Your task to perform on an android device: Open eBay Image 0: 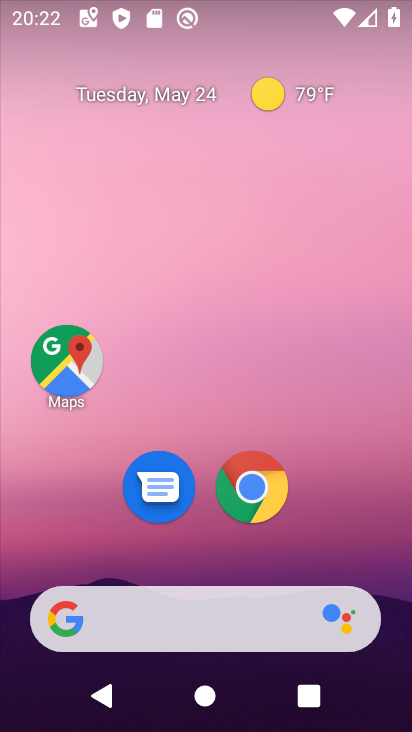
Step 0: click (275, 500)
Your task to perform on an android device: Open eBay Image 1: 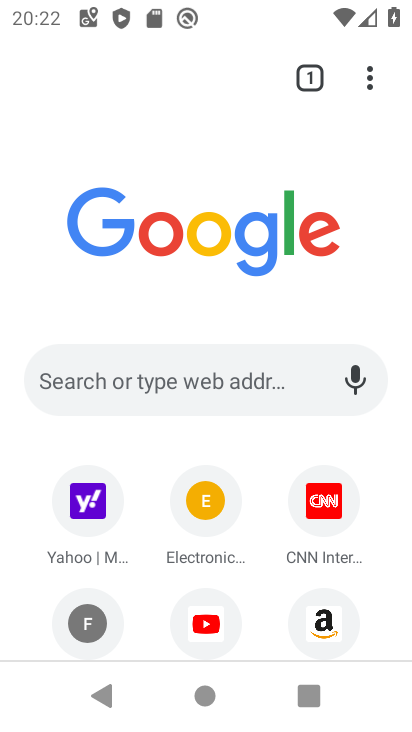
Step 1: click (170, 390)
Your task to perform on an android device: Open eBay Image 2: 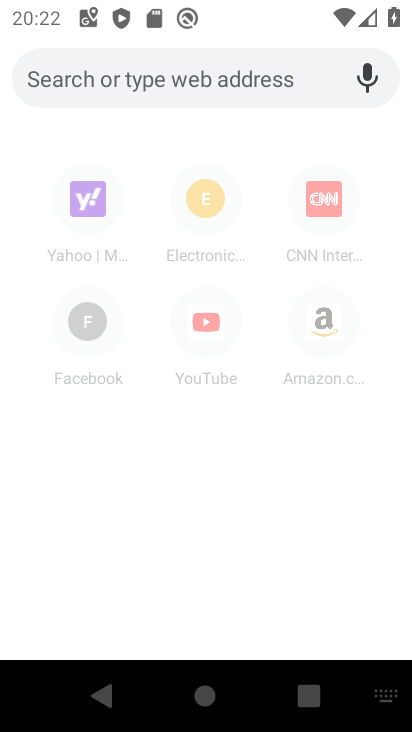
Step 2: click (148, 79)
Your task to perform on an android device: Open eBay Image 3: 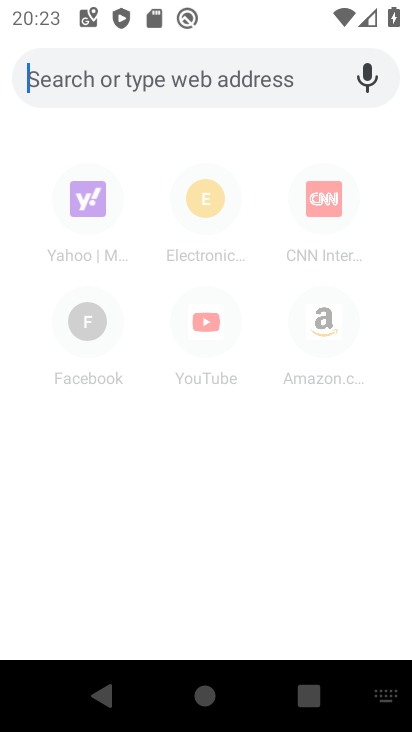
Step 3: type "eBay"
Your task to perform on an android device: Open eBay Image 4: 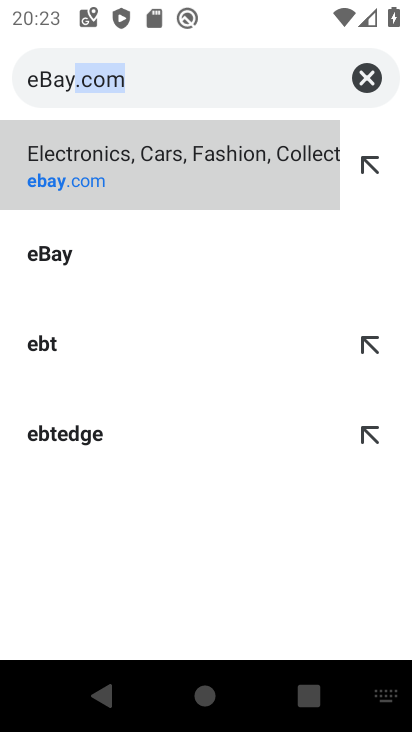
Step 4: type ""
Your task to perform on an android device: Open eBay Image 5: 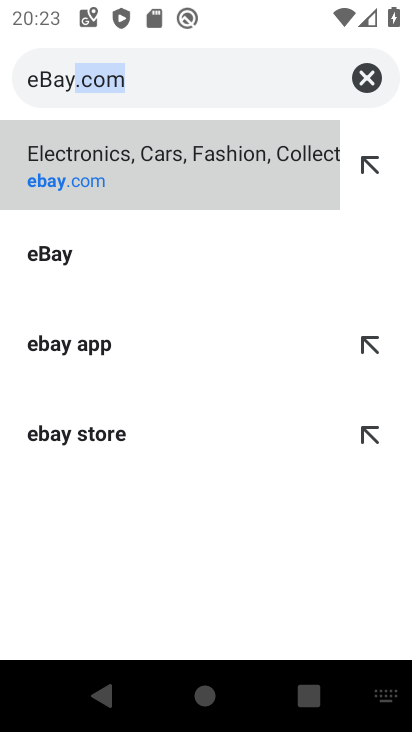
Step 5: click (210, 158)
Your task to perform on an android device: Open eBay Image 6: 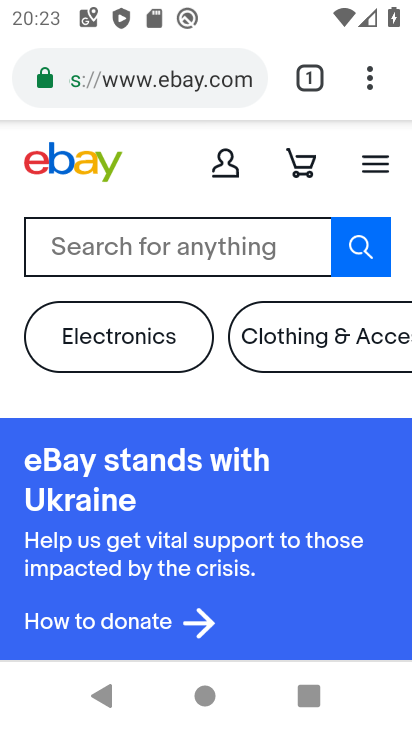
Step 6: task complete